Your task to perform on an android device: Show me popular games on the Play Store Image 0: 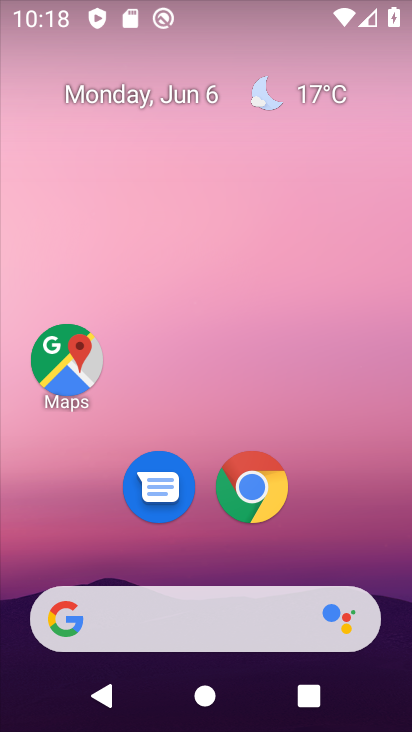
Step 0: drag from (160, 630) to (161, 69)
Your task to perform on an android device: Show me popular games on the Play Store Image 1: 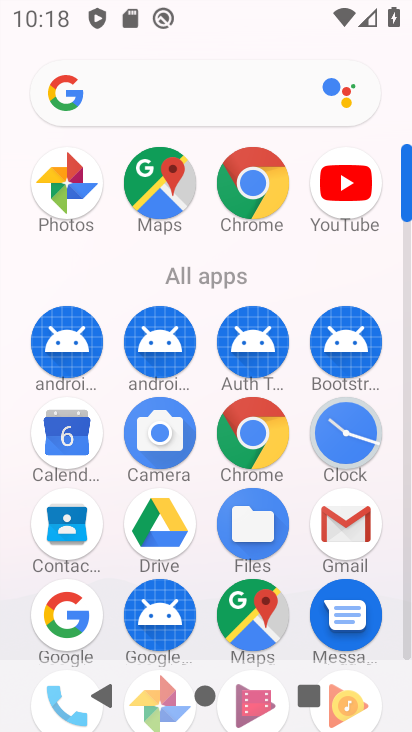
Step 1: drag from (102, 479) to (118, 190)
Your task to perform on an android device: Show me popular games on the Play Store Image 2: 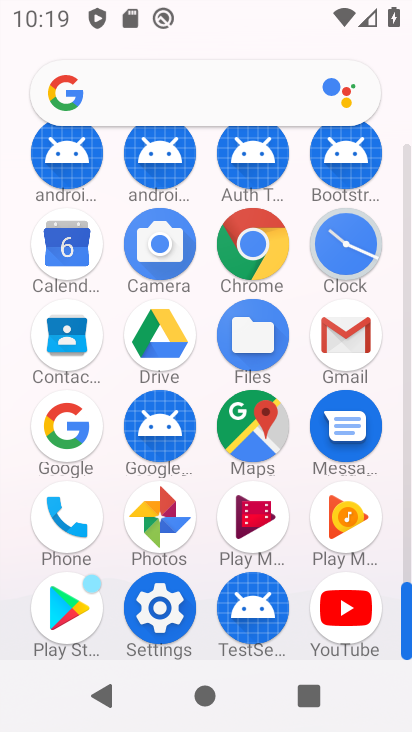
Step 2: click (63, 605)
Your task to perform on an android device: Show me popular games on the Play Store Image 3: 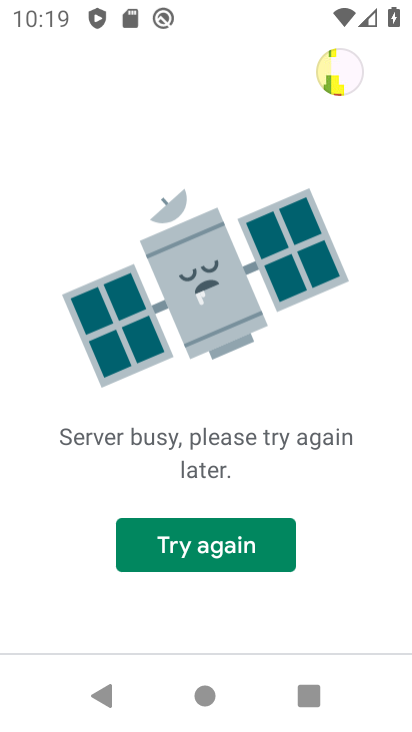
Step 3: click (201, 555)
Your task to perform on an android device: Show me popular games on the Play Store Image 4: 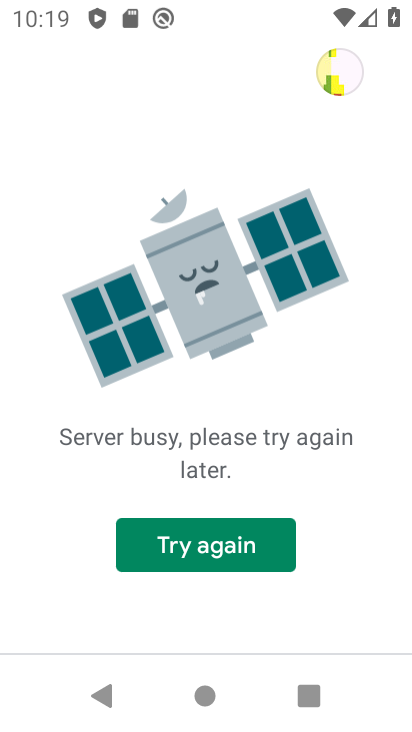
Step 4: click (215, 545)
Your task to perform on an android device: Show me popular games on the Play Store Image 5: 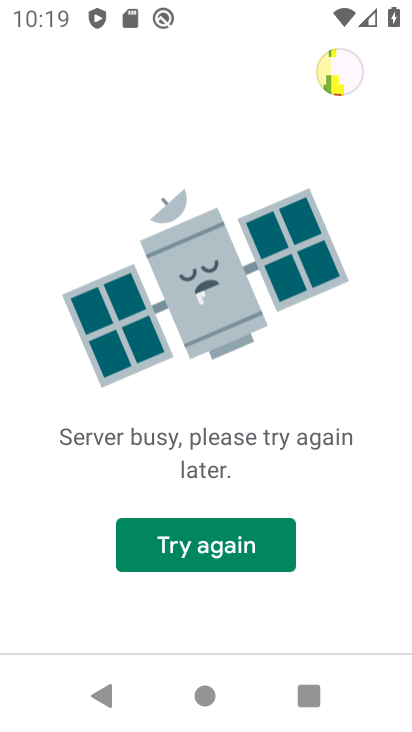
Step 5: task complete